Your task to perform on an android device: move a message to another label in the gmail app Image 0: 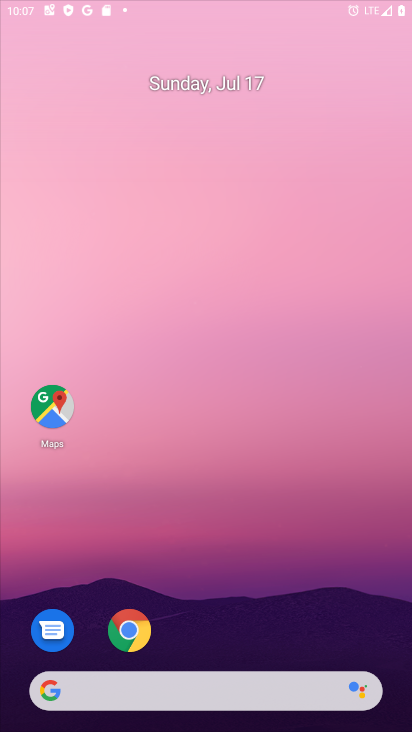
Step 0: press home button
Your task to perform on an android device: move a message to another label in the gmail app Image 1: 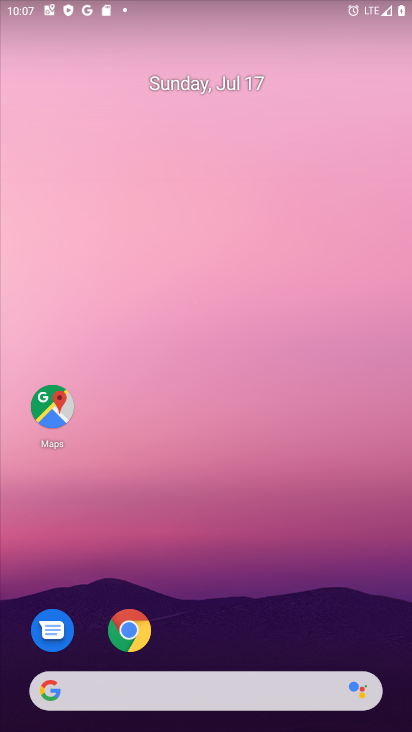
Step 1: drag from (219, 658) to (293, 65)
Your task to perform on an android device: move a message to another label in the gmail app Image 2: 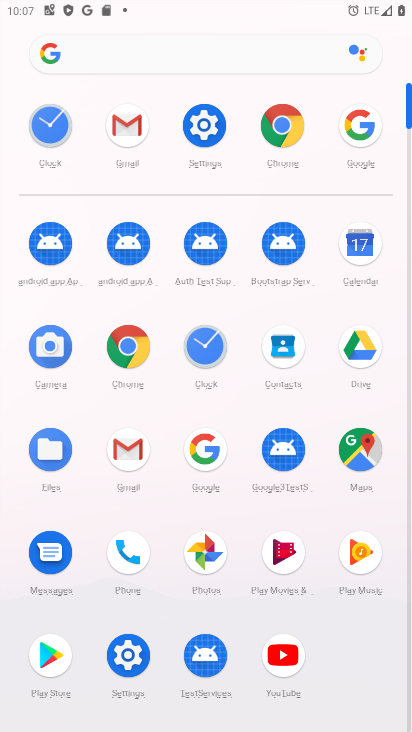
Step 2: click (125, 440)
Your task to perform on an android device: move a message to another label in the gmail app Image 3: 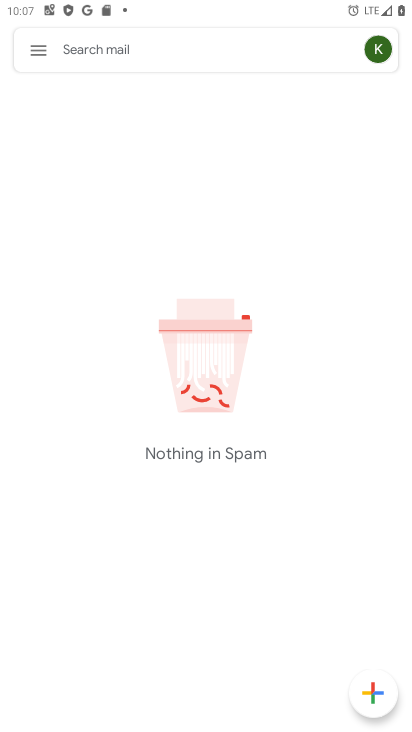
Step 3: press home button
Your task to perform on an android device: move a message to another label in the gmail app Image 4: 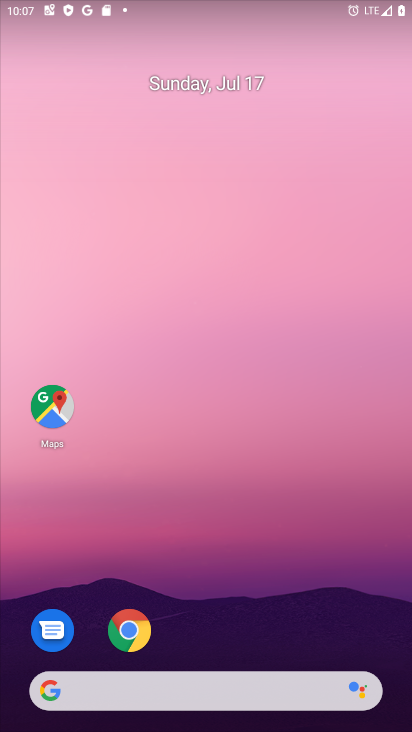
Step 4: drag from (222, 654) to (311, 88)
Your task to perform on an android device: move a message to another label in the gmail app Image 5: 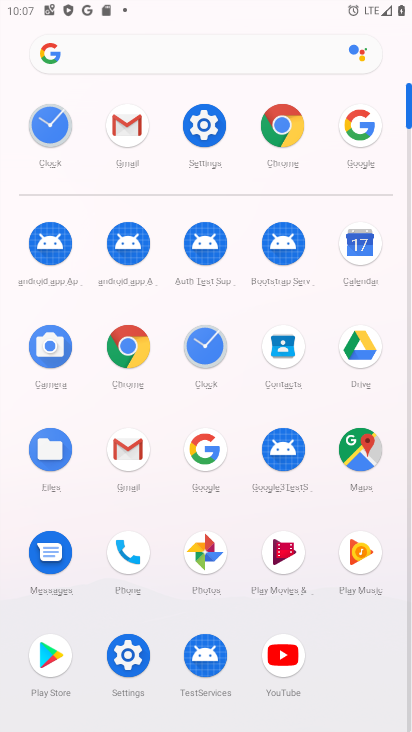
Step 5: click (125, 122)
Your task to perform on an android device: move a message to another label in the gmail app Image 6: 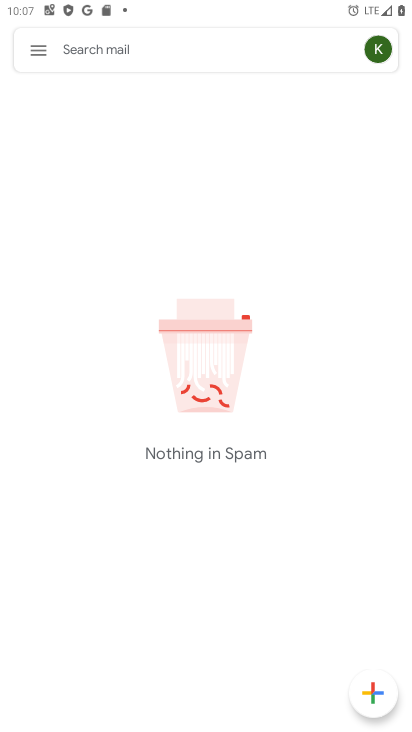
Step 6: click (38, 55)
Your task to perform on an android device: move a message to another label in the gmail app Image 7: 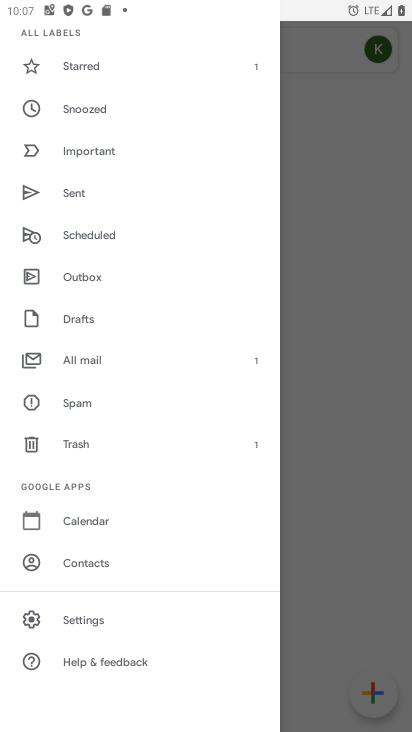
Step 7: click (85, 360)
Your task to perform on an android device: move a message to another label in the gmail app Image 8: 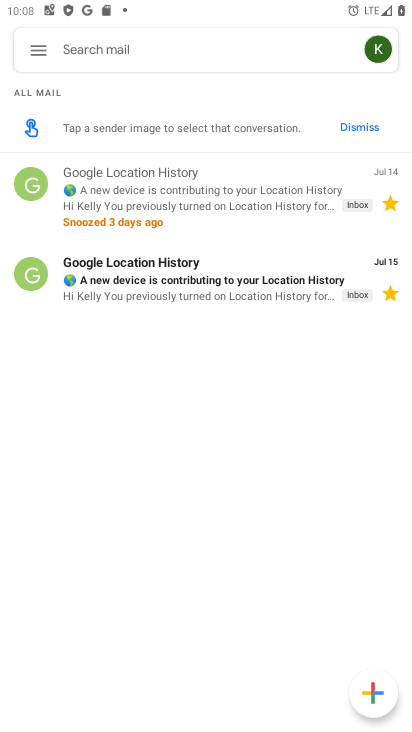
Step 8: click (121, 273)
Your task to perform on an android device: move a message to another label in the gmail app Image 9: 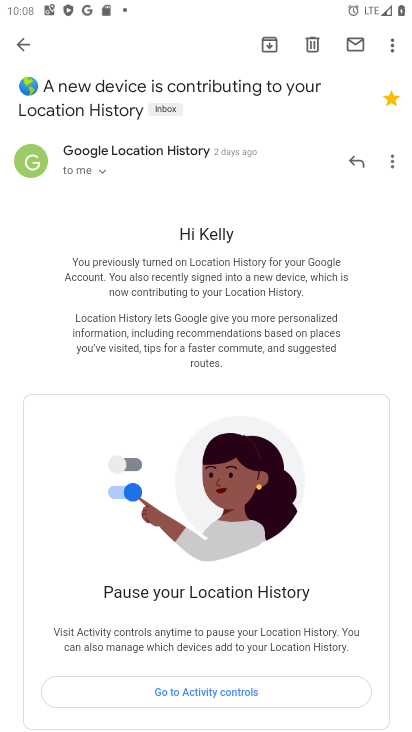
Step 9: click (23, 45)
Your task to perform on an android device: move a message to another label in the gmail app Image 10: 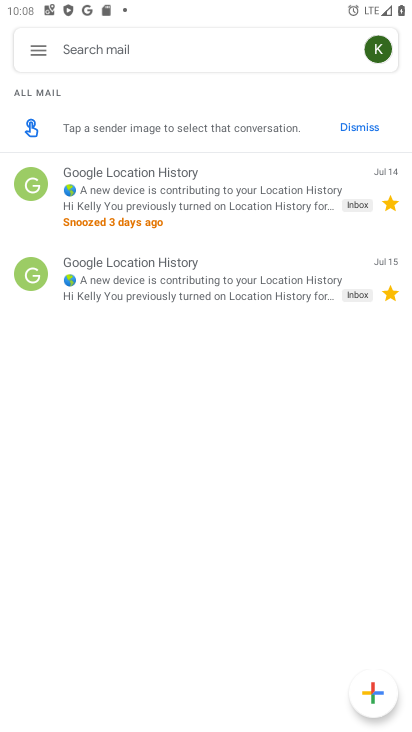
Step 10: click (34, 271)
Your task to perform on an android device: move a message to another label in the gmail app Image 11: 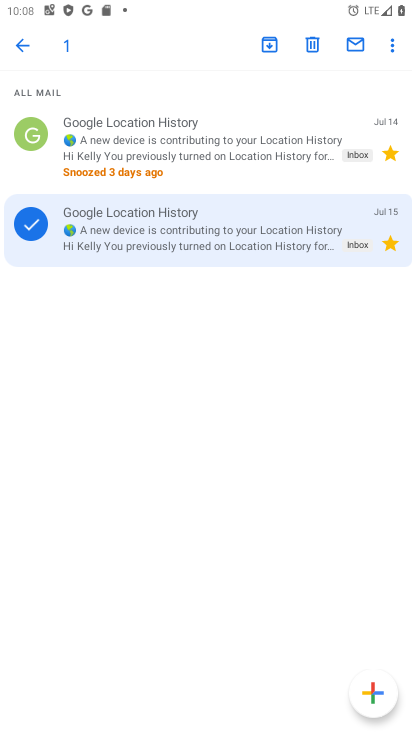
Step 11: click (391, 47)
Your task to perform on an android device: move a message to another label in the gmail app Image 12: 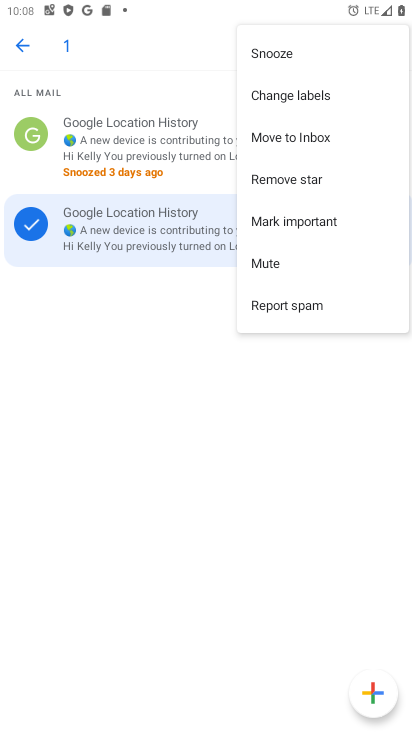
Step 12: click (335, 86)
Your task to perform on an android device: move a message to another label in the gmail app Image 13: 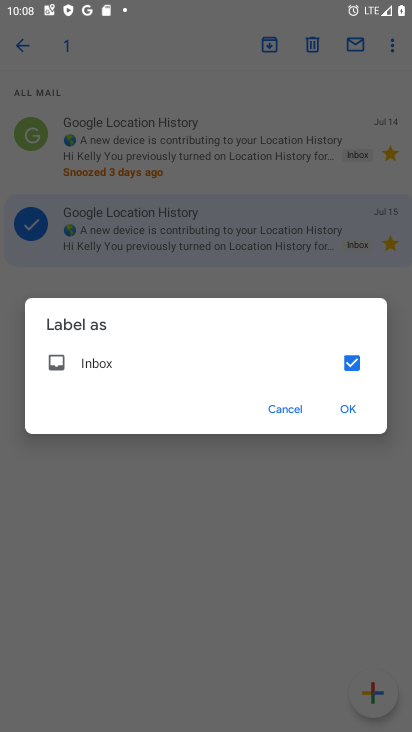
Step 13: click (352, 365)
Your task to perform on an android device: move a message to another label in the gmail app Image 14: 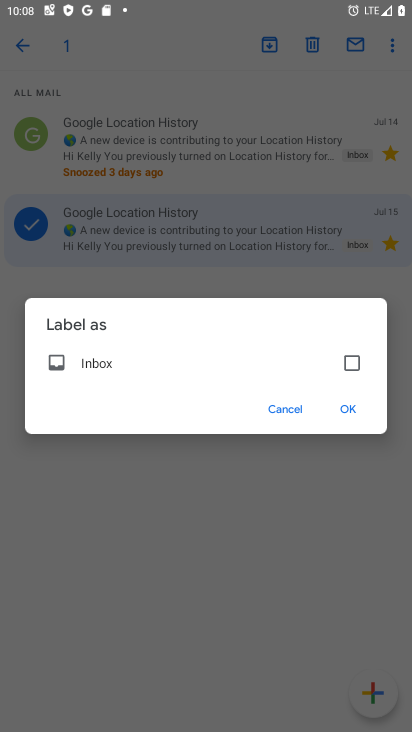
Step 14: click (342, 408)
Your task to perform on an android device: move a message to another label in the gmail app Image 15: 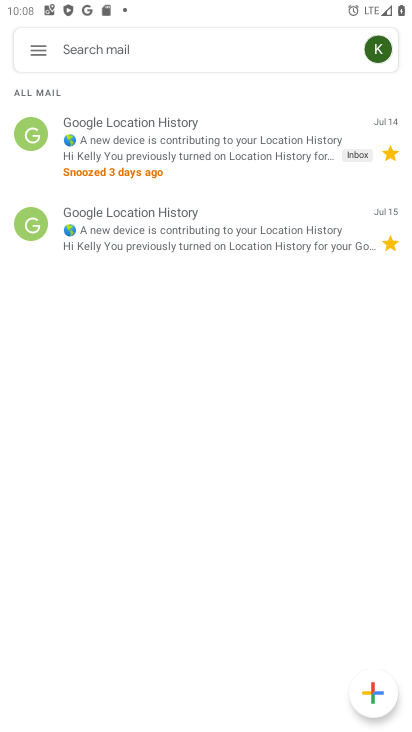
Step 15: task complete